Your task to perform on an android device: turn off data saver in the chrome app Image 0: 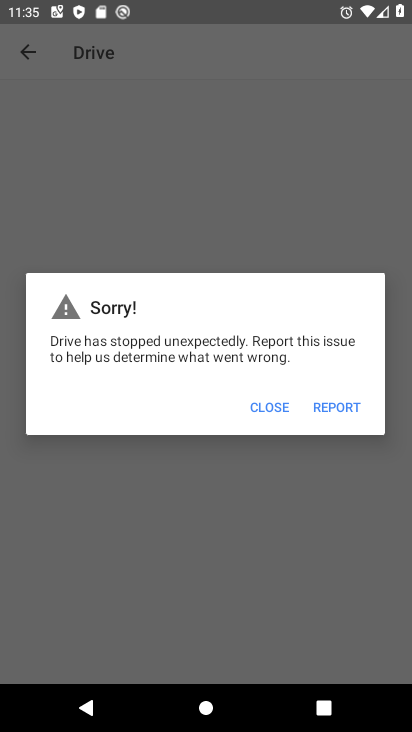
Step 0: press home button
Your task to perform on an android device: turn off data saver in the chrome app Image 1: 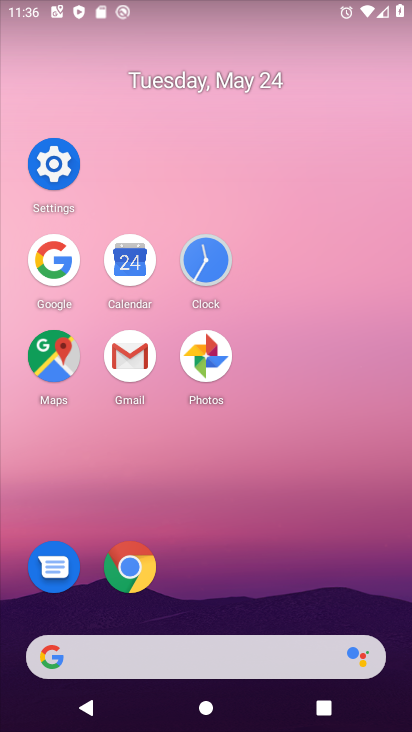
Step 1: click (121, 579)
Your task to perform on an android device: turn off data saver in the chrome app Image 2: 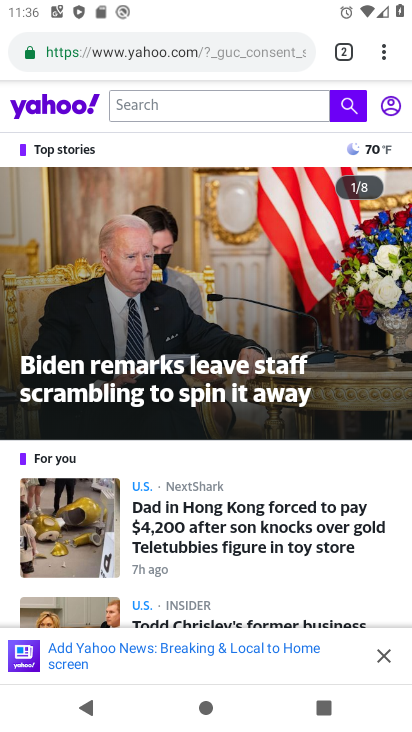
Step 2: click (389, 60)
Your task to perform on an android device: turn off data saver in the chrome app Image 3: 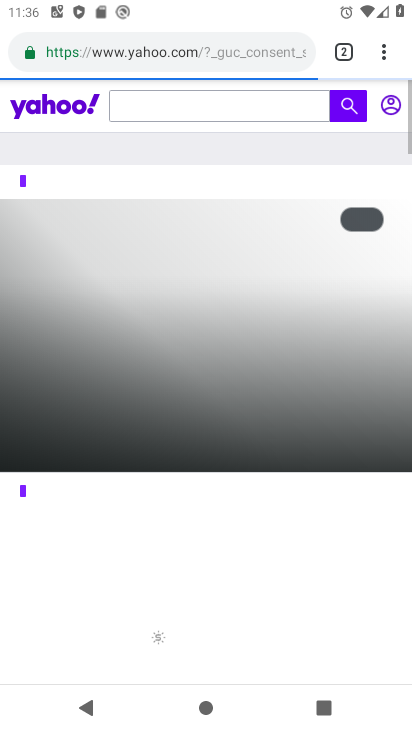
Step 3: click (374, 66)
Your task to perform on an android device: turn off data saver in the chrome app Image 4: 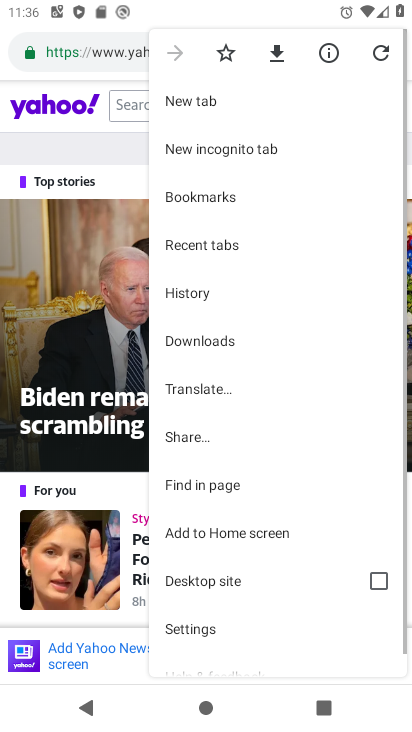
Step 4: drag from (241, 532) to (308, 114)
Your task to perform on an android device: turn off data saver in the chrome app Image 5: 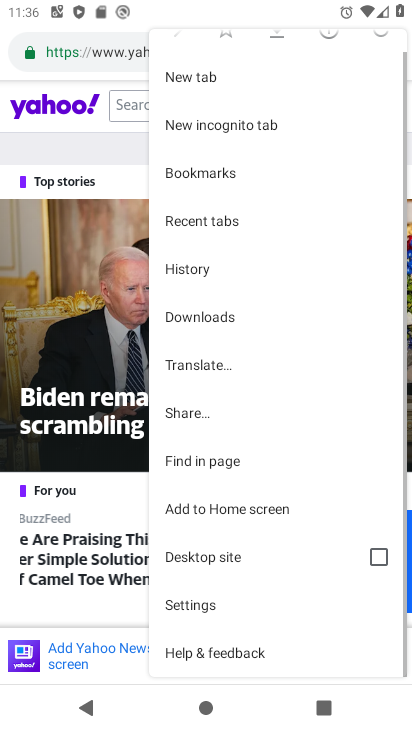
Step 5: click (227, 606)
Your task to perform on an android device: turn off data saver in the chrome app Image 6: 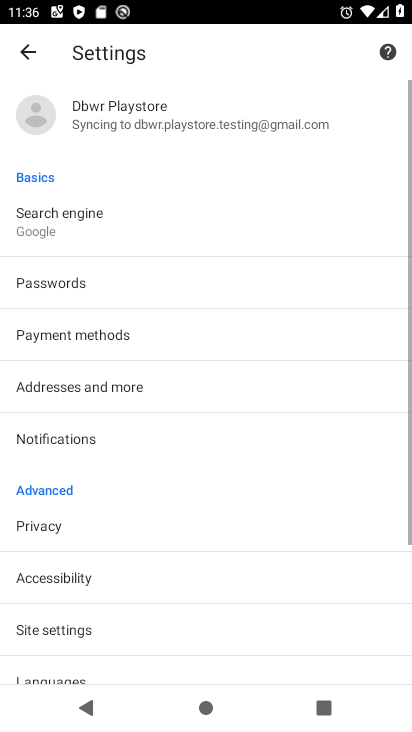
Step 6: drag from (227, 606) to (287, 193)
Your task to perform on an android device: turn off data saver in the chrome app Image 7: 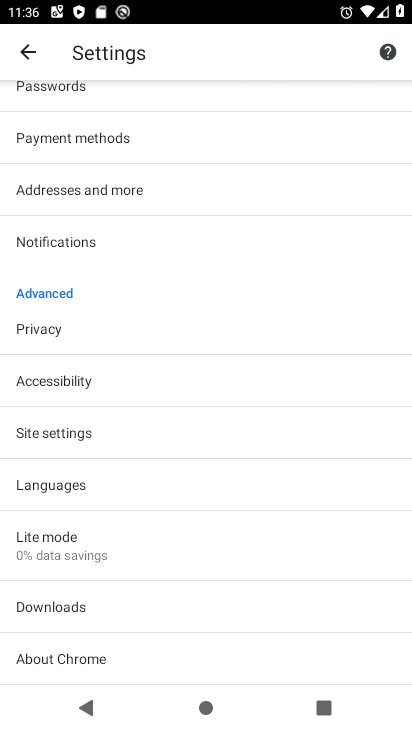
Step 7: click (103, 553)
Your task to perform on an android device: turn off data saver in the chrome app Image 8: 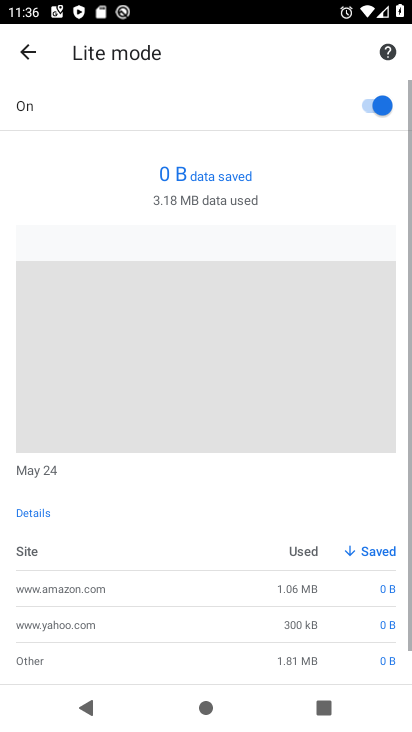
Step 8: click (388, 110)
Your task to perform on an android device: turn off data saver in the chrome app Image 9: 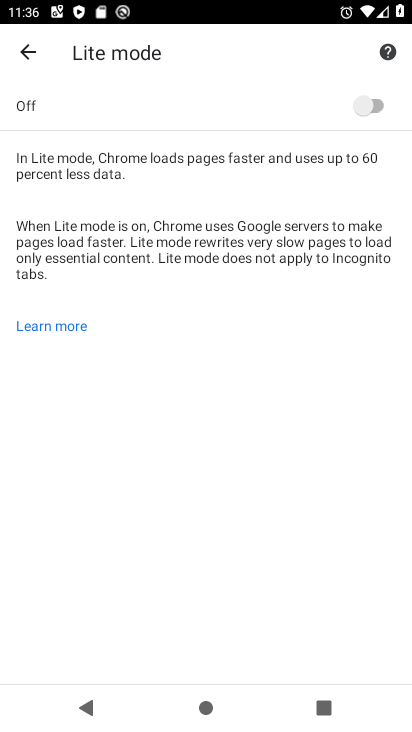
Step 9: task complete